Your task to perform on an android device: toggle location history Image 0: 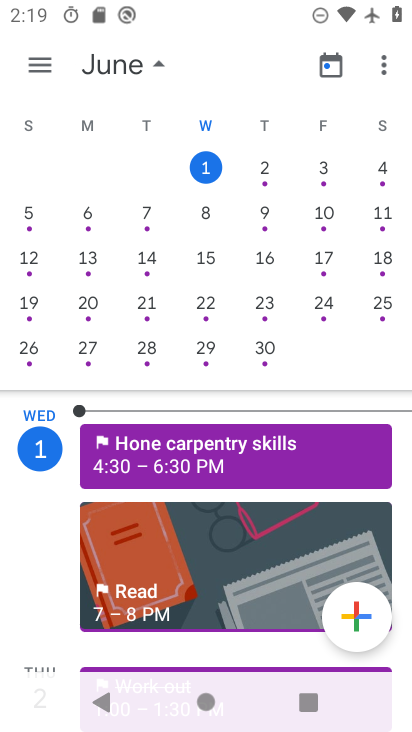
Step 0: press home button
Your task to perform on an android device: toggle location history Image 1: 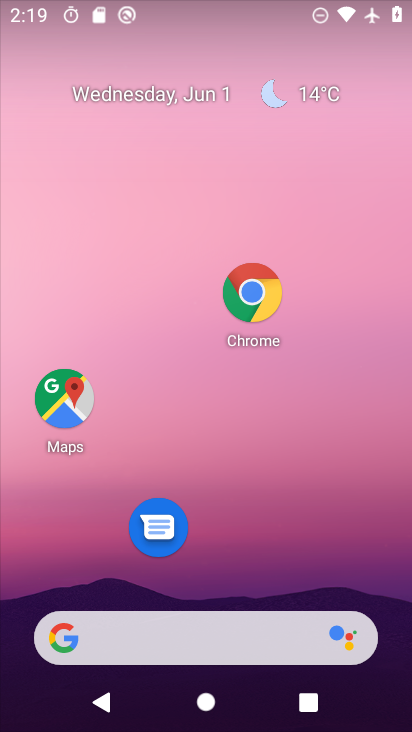
Step 1: click (215, 353)
Your task to perform on an android device: toggle location history Image 2: 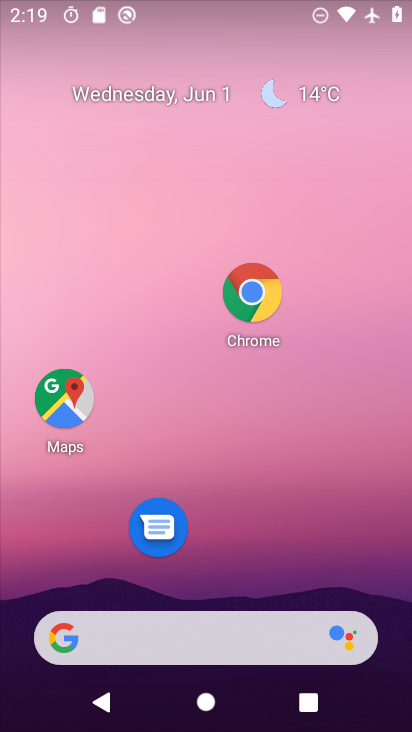
Step 2: drag from (212, 477) to (399, 189)
Your task to perform on an android device: toggle location history Image 3: 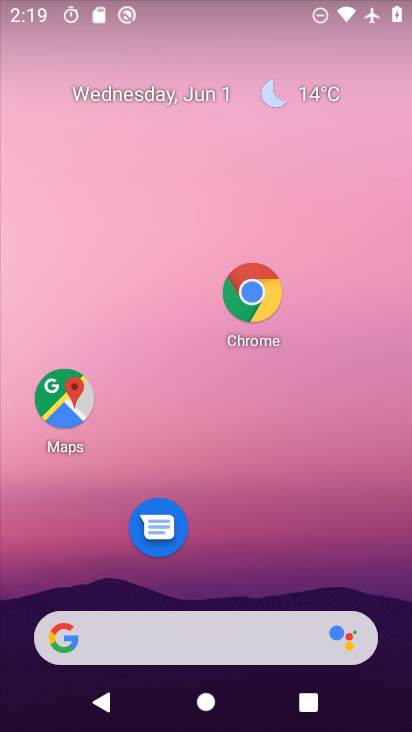
Step 3: drag from (249, 280) to (260, 201)
Your task to perform on an android device: toggle location history Image 4: 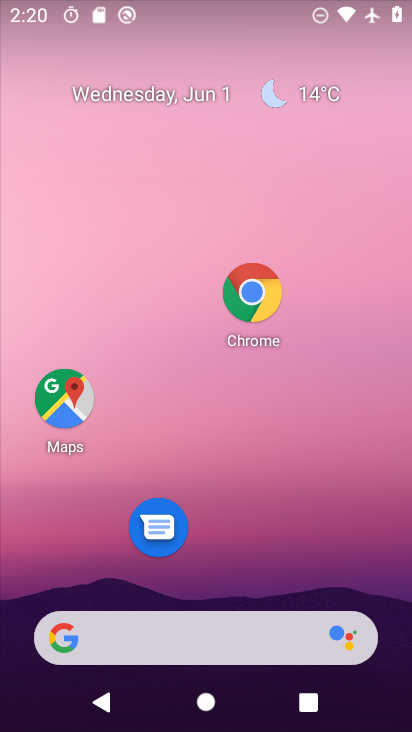
Step 4: drag from (230, 471) to (251, 38)
Your task to perform on an android device: toggle location history Image 5: 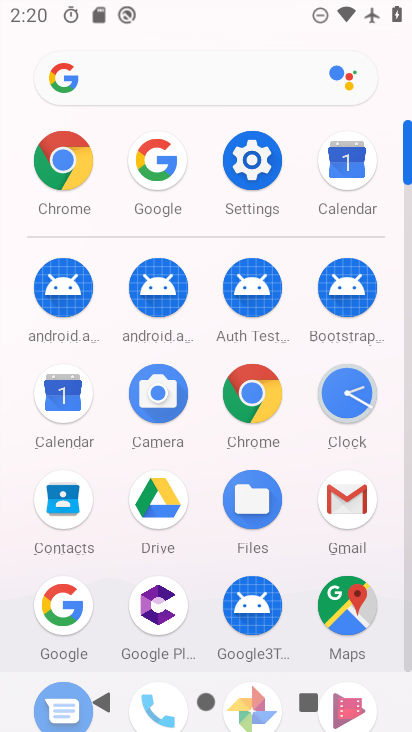
Step 5: click (264, 180)
Your task to perform on an android device: toggle location history Image 6: 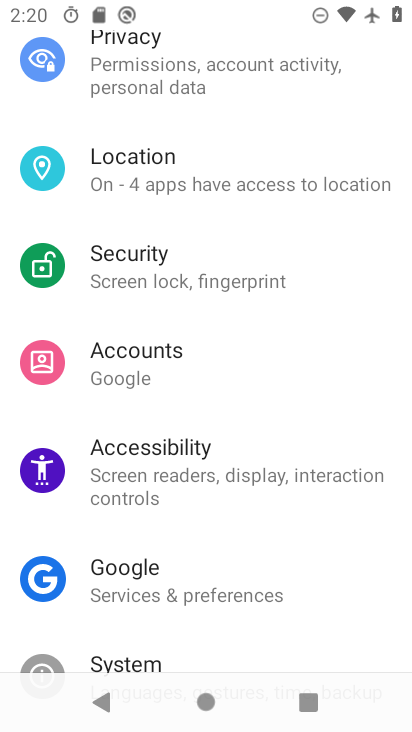
Step 6: click (230, 181)
Your task to perform on an android device: toggle location history Image 7: 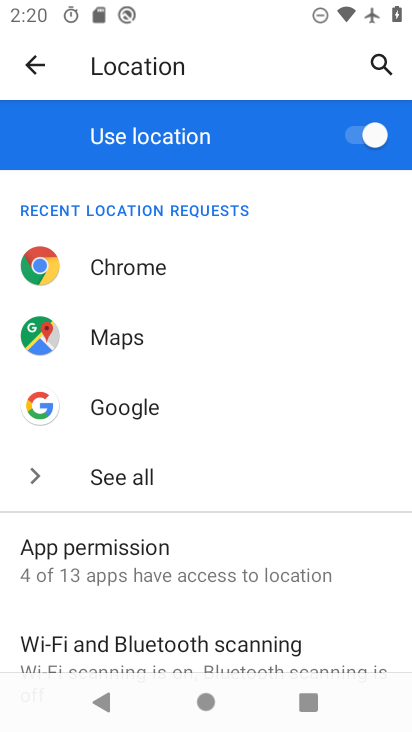
Step 7: drag from (179, 549) to (222, 251)
Your task to perform on an android device: toggle location history Image 8: 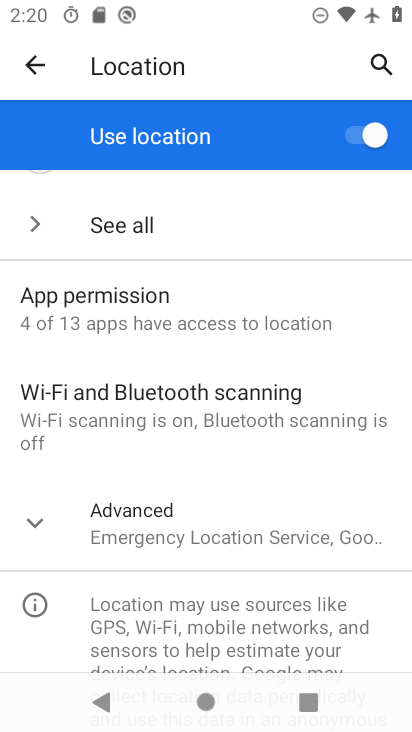
Step 8: click (201, 532)
Your task to perform on an android device: toggle location history Image 9: 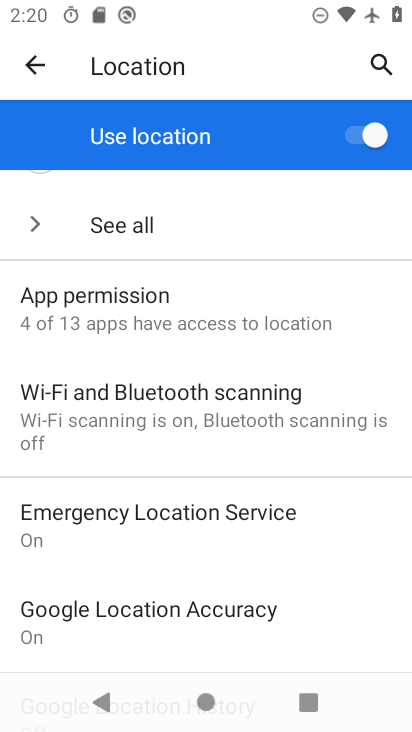
Step 9: drag from (204, 573) to (228, 381)
Your task to perform on an android device: toggle location history Image 10: 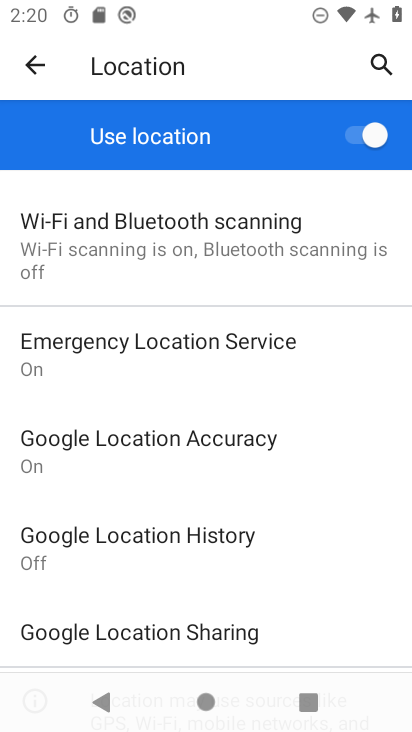
Step 10: click (198, 558)
Your task to perform on an android device: toggle location history Image 11: 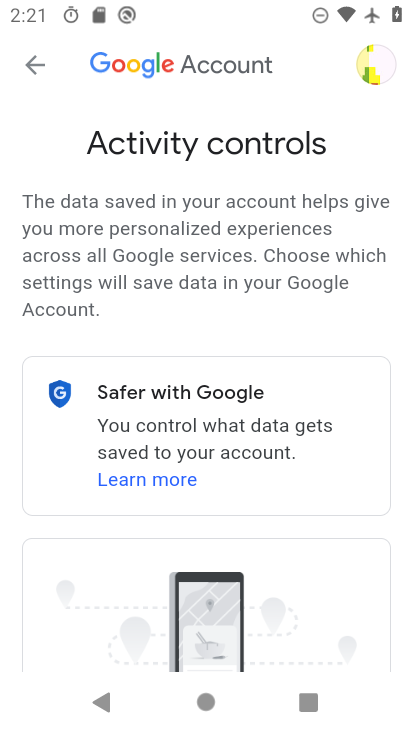
Step 11: drag from (252, 587) to (1, 355)
Your task to perform on an android device: toggle location history Image 12: 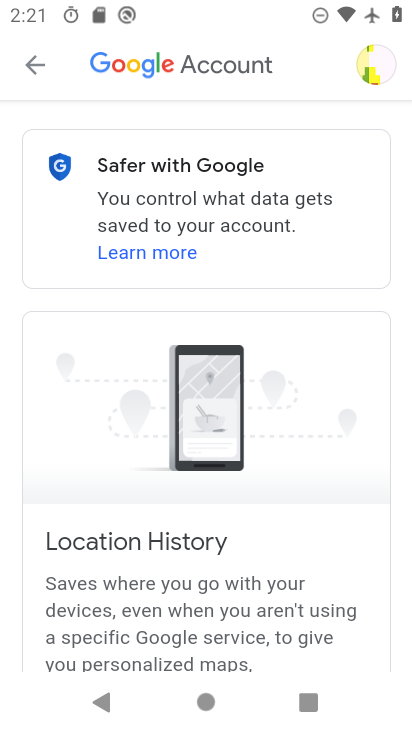
Step 12: drag from (235, 548) to (238, 226)
Your task to perform on an android device: toggle location history Image 13: 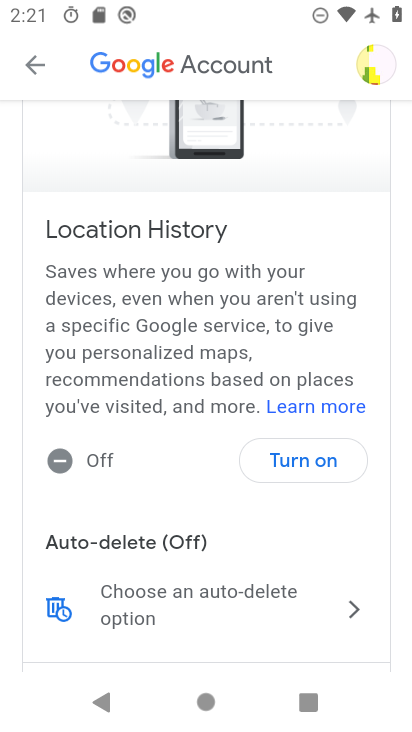
Step 13: click (320, 461)
Your task to perform on an android device: toggle location history Image 14: 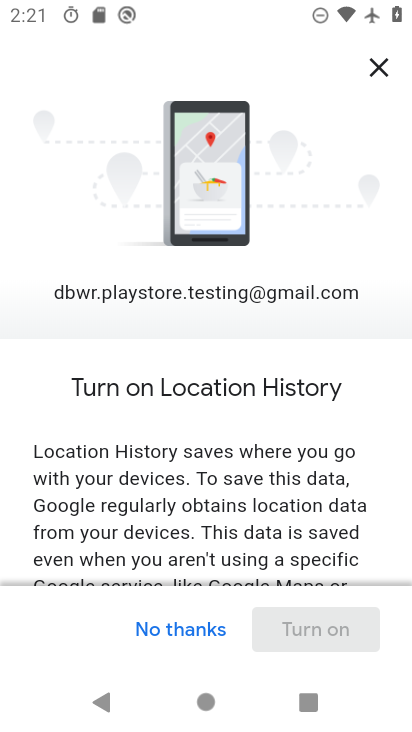
Step 14: drag from (310, 410) to (332, 156)
Your task to perform on an android device: toggle location history Image 15: 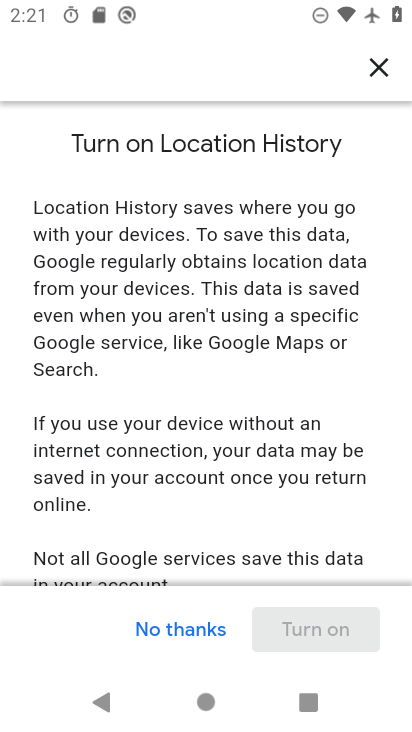
Step 15: drag from (276, 491) to (285, 266)
Your task to perform on an android device: toggle location history Image 16: 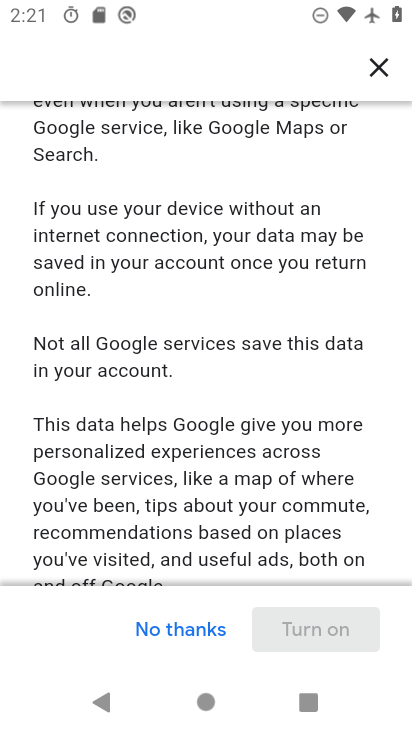
Step 16: drag from (276, 484) to (297, 304)
Your task to perform on an android device: toggle location history Image 17: 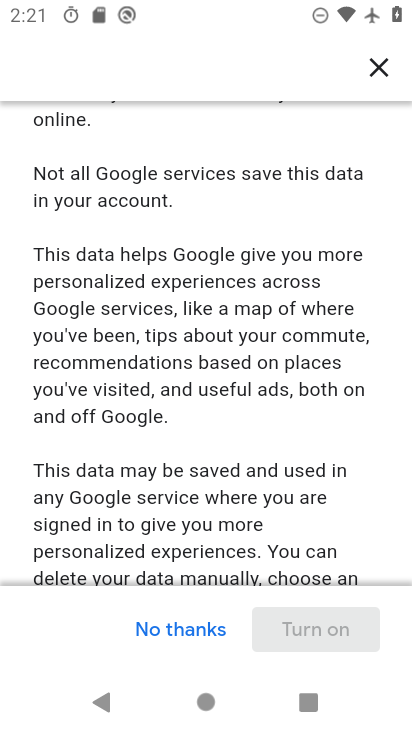
Step 17: drag from (309, 434) to (313, 267)
Your task to perform on an android device: toggle location history Image 18: 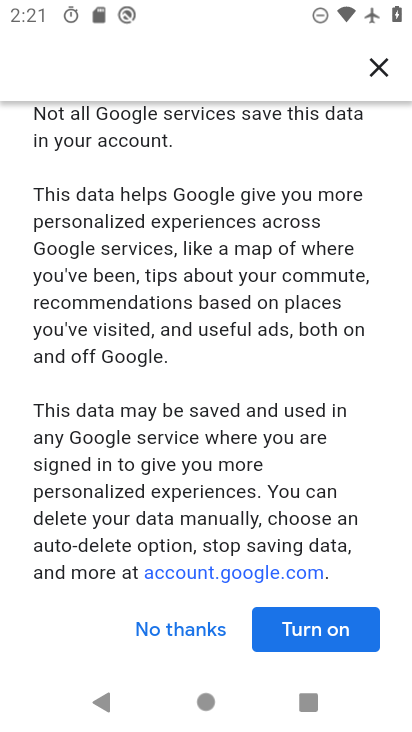
Step 18: click (295, 630)
Your task to perform on an android device: toggle location history Image 19: 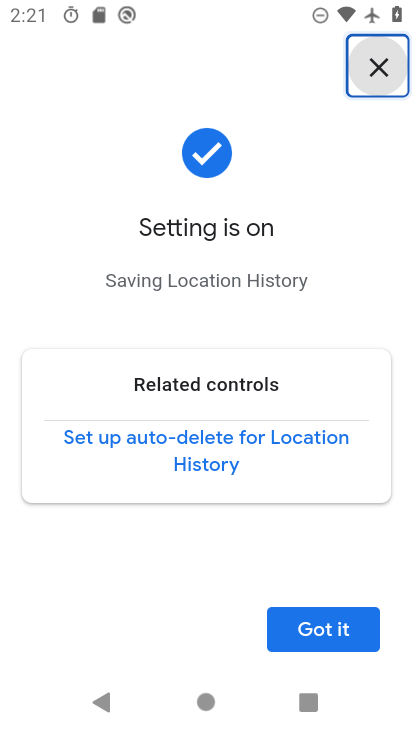
Step 19: click (315, 638)
Your task to perform on an android device: toggle location history Image 20: 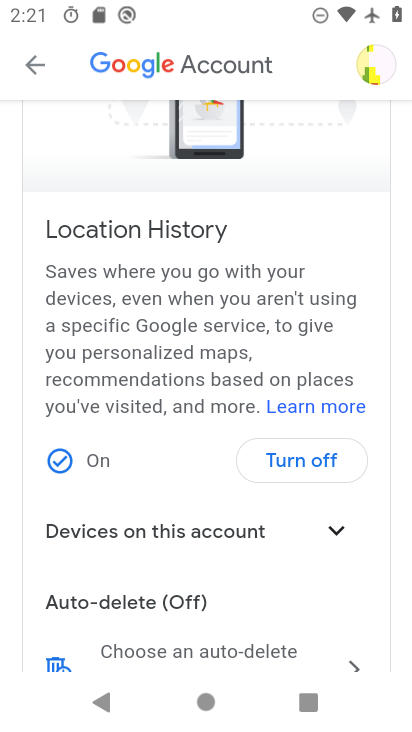
Step 20: task complete